Your task to perform on an android device: View the shopping cart on target.com. Add usb-c to usb-b to the cart on target.com, then select checkout. Image 0: 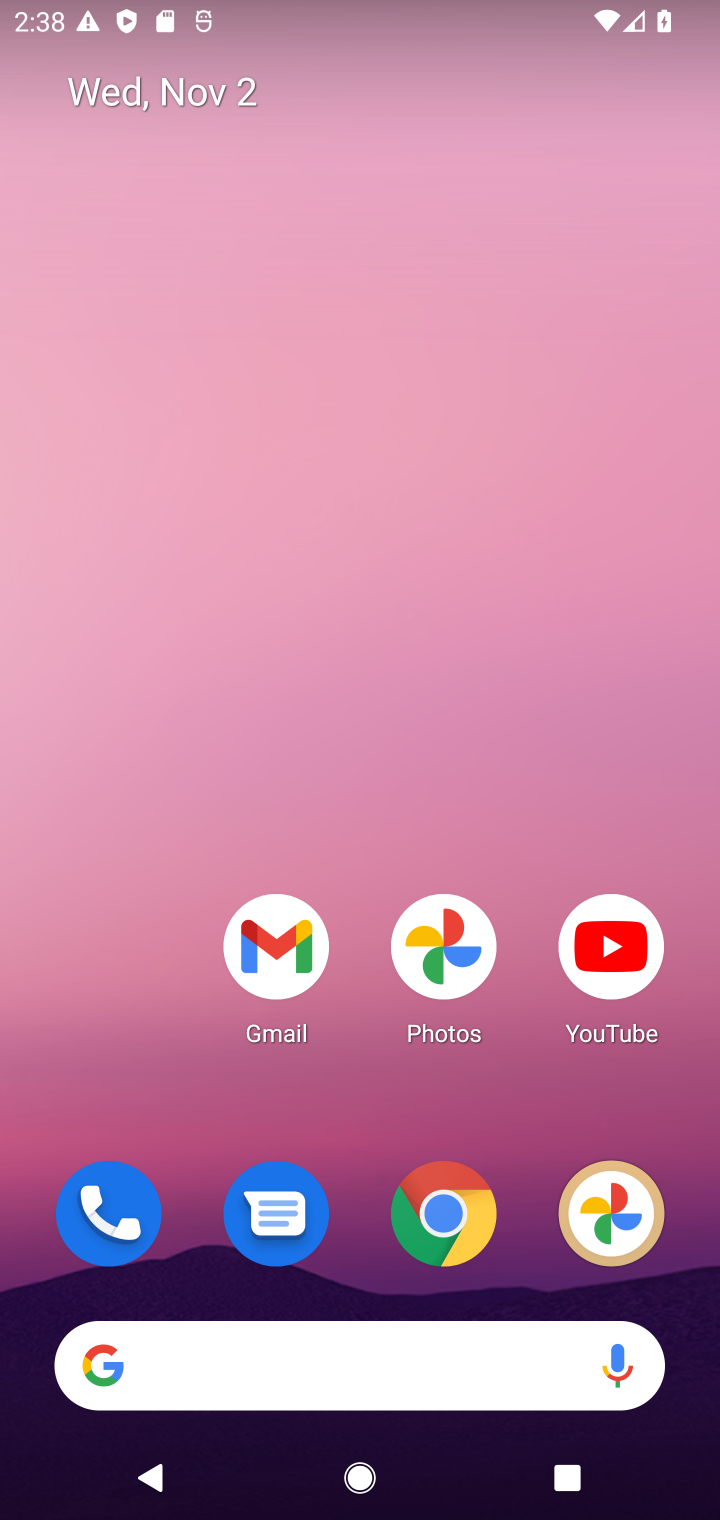
Step 0: press home button
Your task to perform on an android device: View the shopping cart on target.com. Add usb-c to usb-b to the cart on target.com, then select checkout. Image 1: 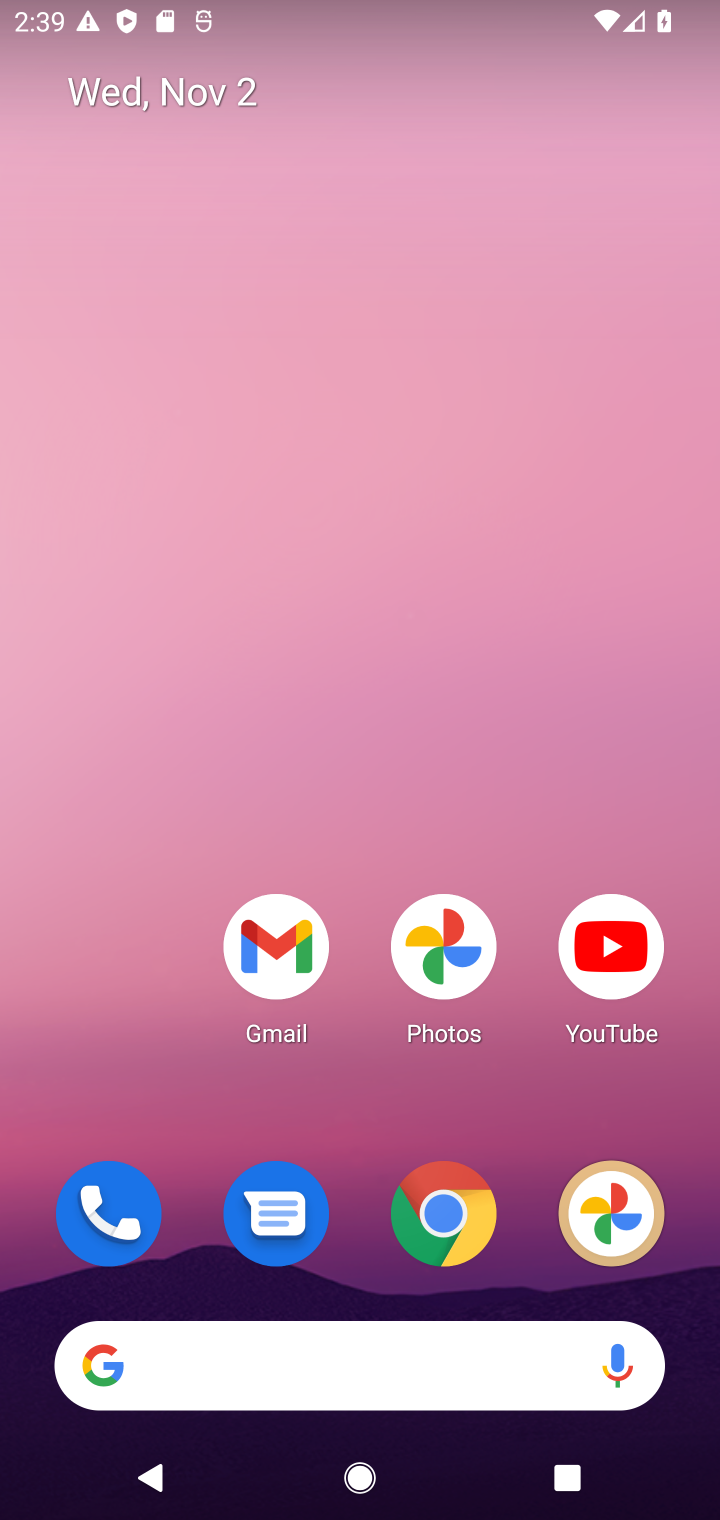
Step 1: click (452, 1202)
Your task to perform on an android device: View the shopping cart on target.com. Add usb-c to usb-b to the cart on target.com, then select checkout. Image 2: 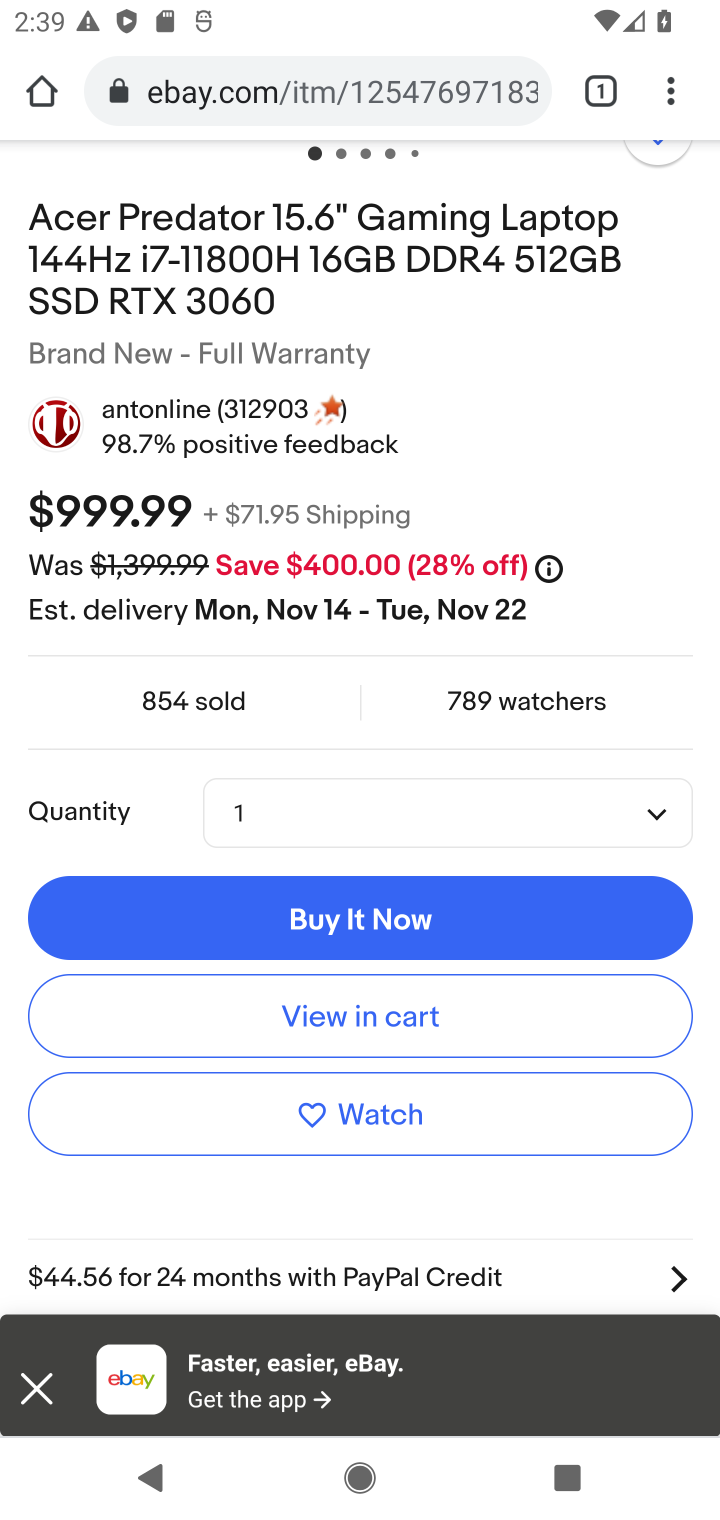
Step 2: click (282, 88)
Your task to perform on an android device: View the shopping cart on target.com. Add usb-c to usb-b to the cart on target.com, then select checkout. Image 3: 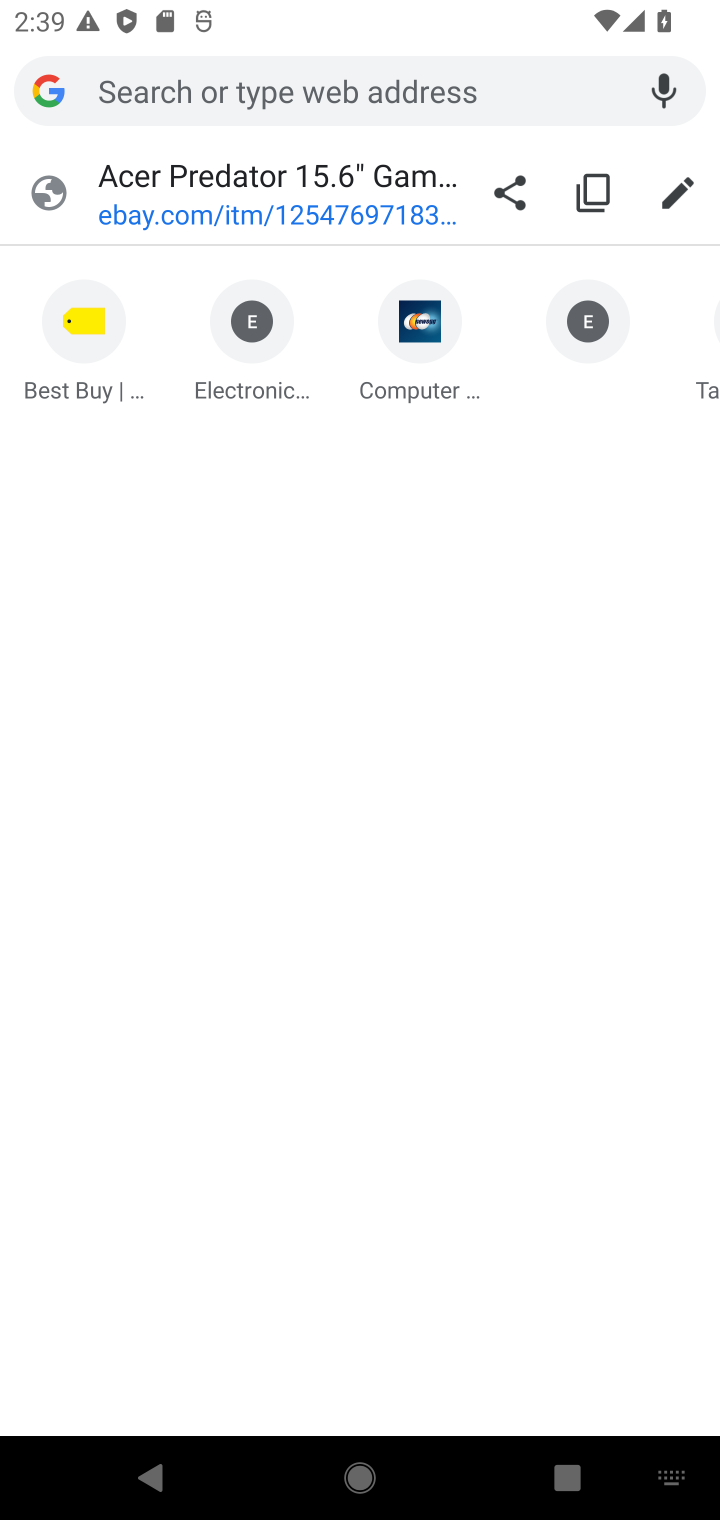
Step 3: type "target.com"
Your task to perform on an android device: View the shopping cart on target.com. Add usb-c to usb-b to the cart on target.com, then select checkout. Image 4: 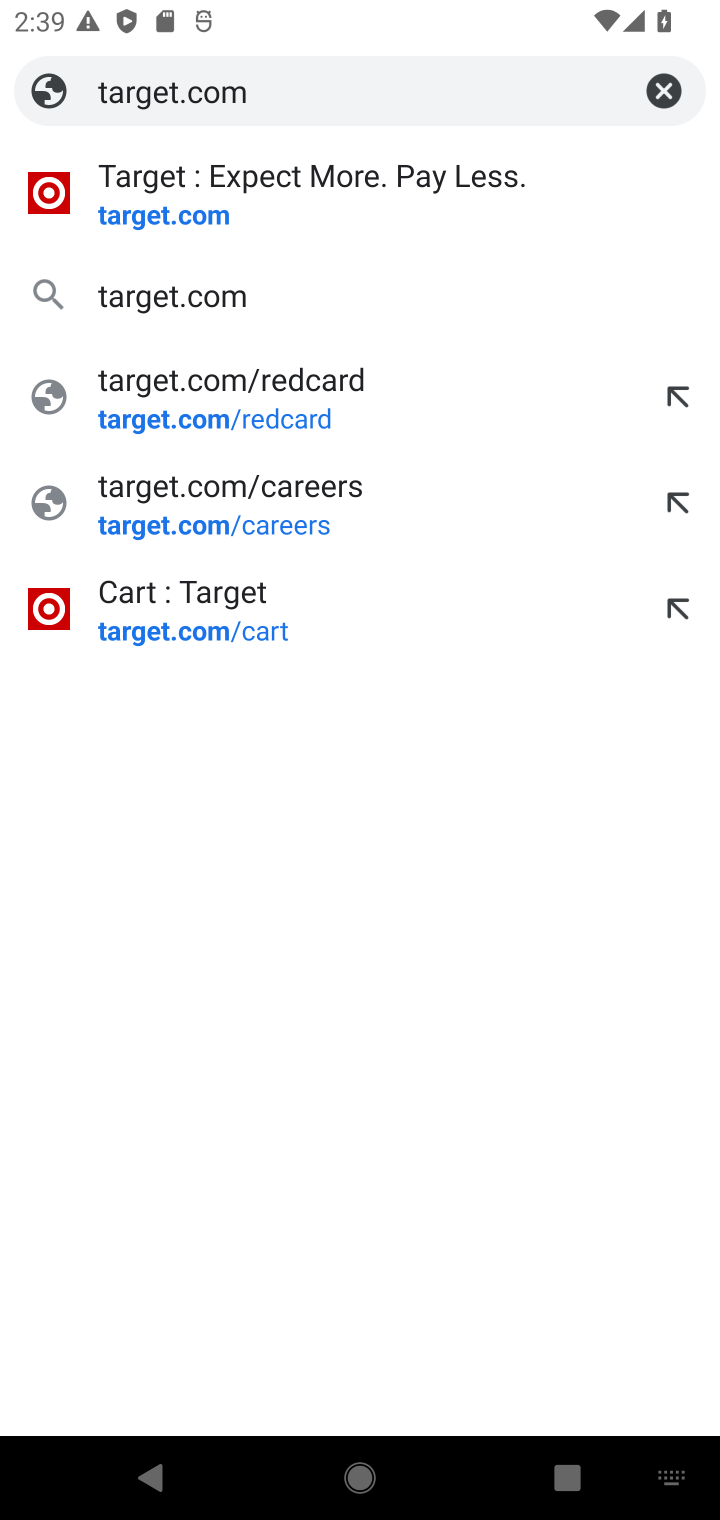
Step 4: press enter
Your task to perform on an android device: View the shopping cart on target.com. Add usb-c to usb-b to the cart on target.com, then select checkout. Image 5: 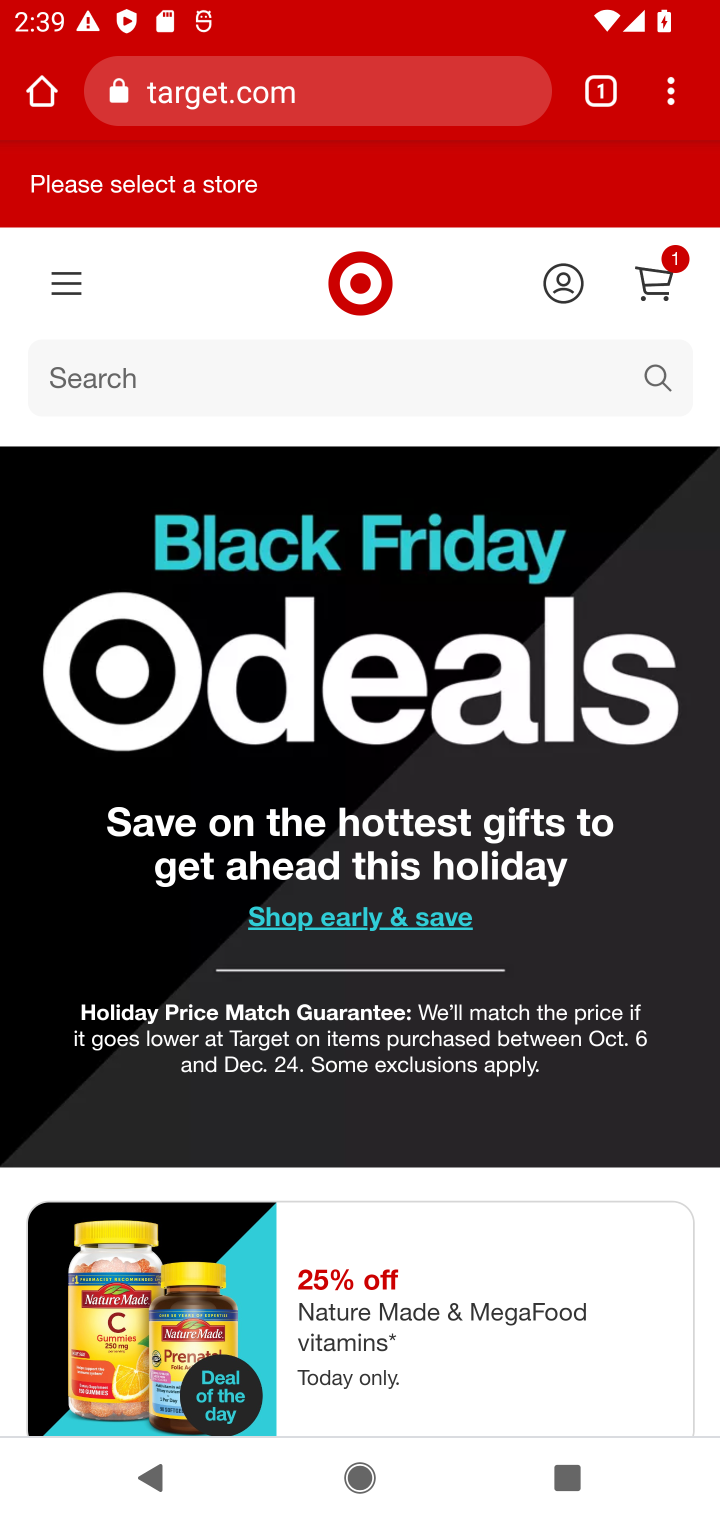
Step 5: drag from (520, 1192) to (430, 1085)
Your task to perform on an android device: View the shopping cart on target.com. Add usb-c to usb-b to the cart on target.com, then select checkout. Image 6: 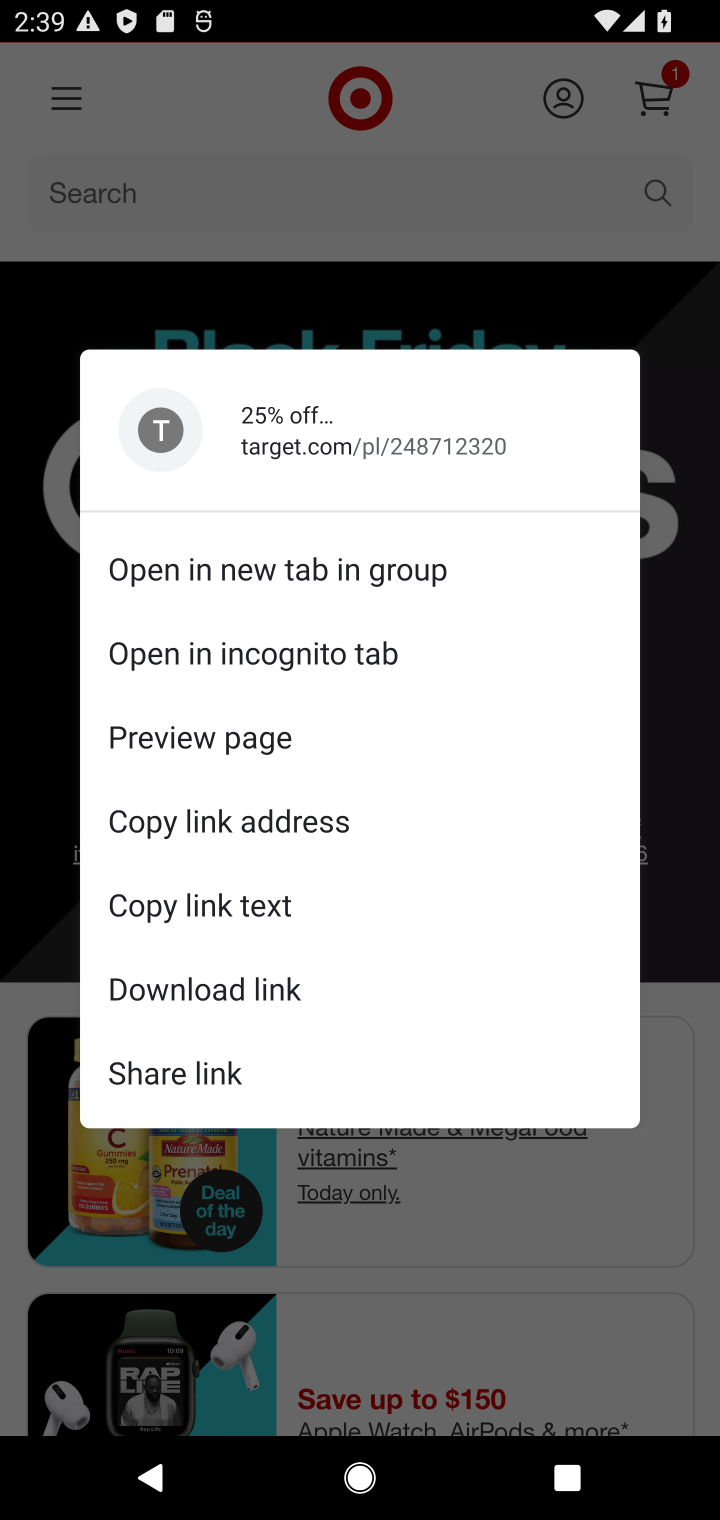
Step 6: click (660, 82)
Your task to perform on an android device: View the shopping cart on target.com. Add usb-c to usb-b to the cart on target.com, then select checkout. Image 7: 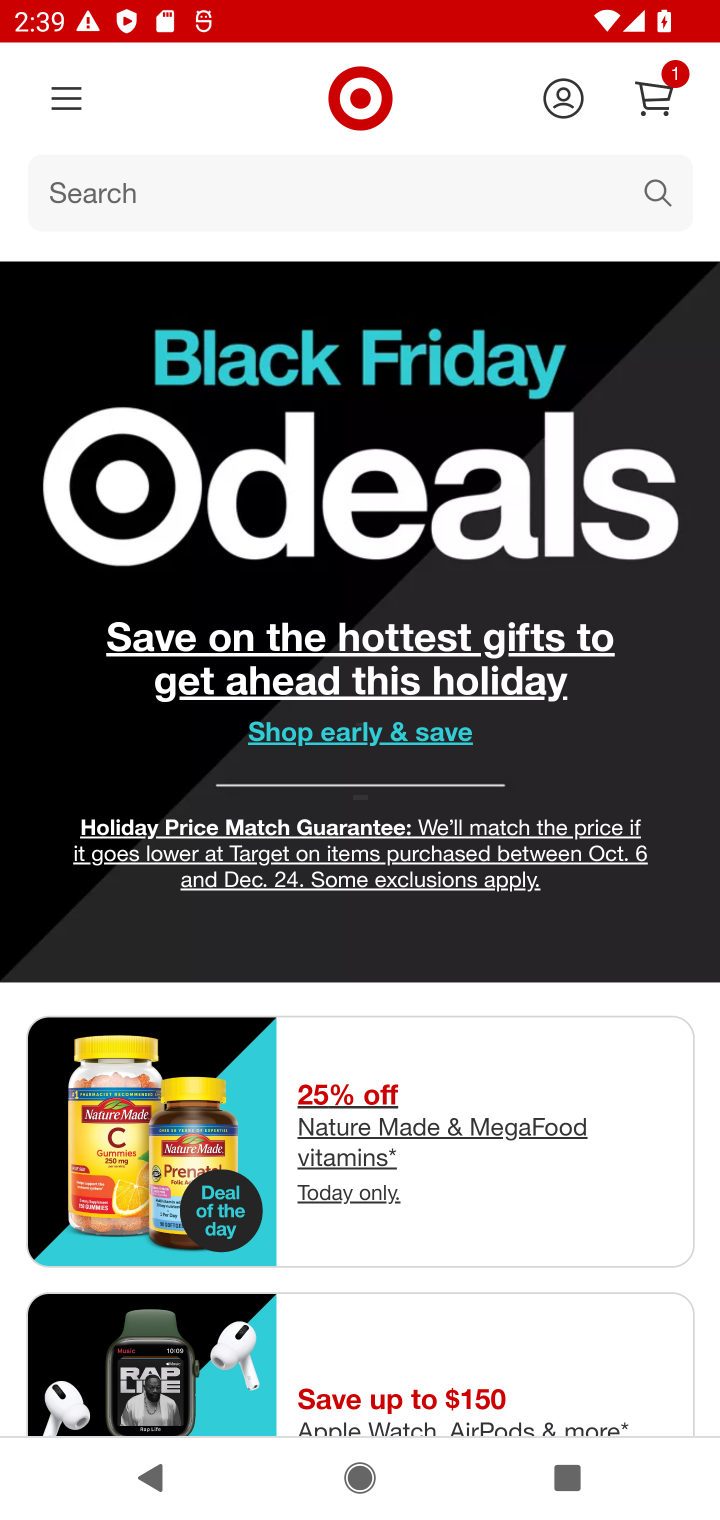
Step 7: click (652, 94)
Your task to perform on an android device: View the shopping cart on target.com. Add usb-c to usb-b to the cart on target.com, then select checkout. Image 8: 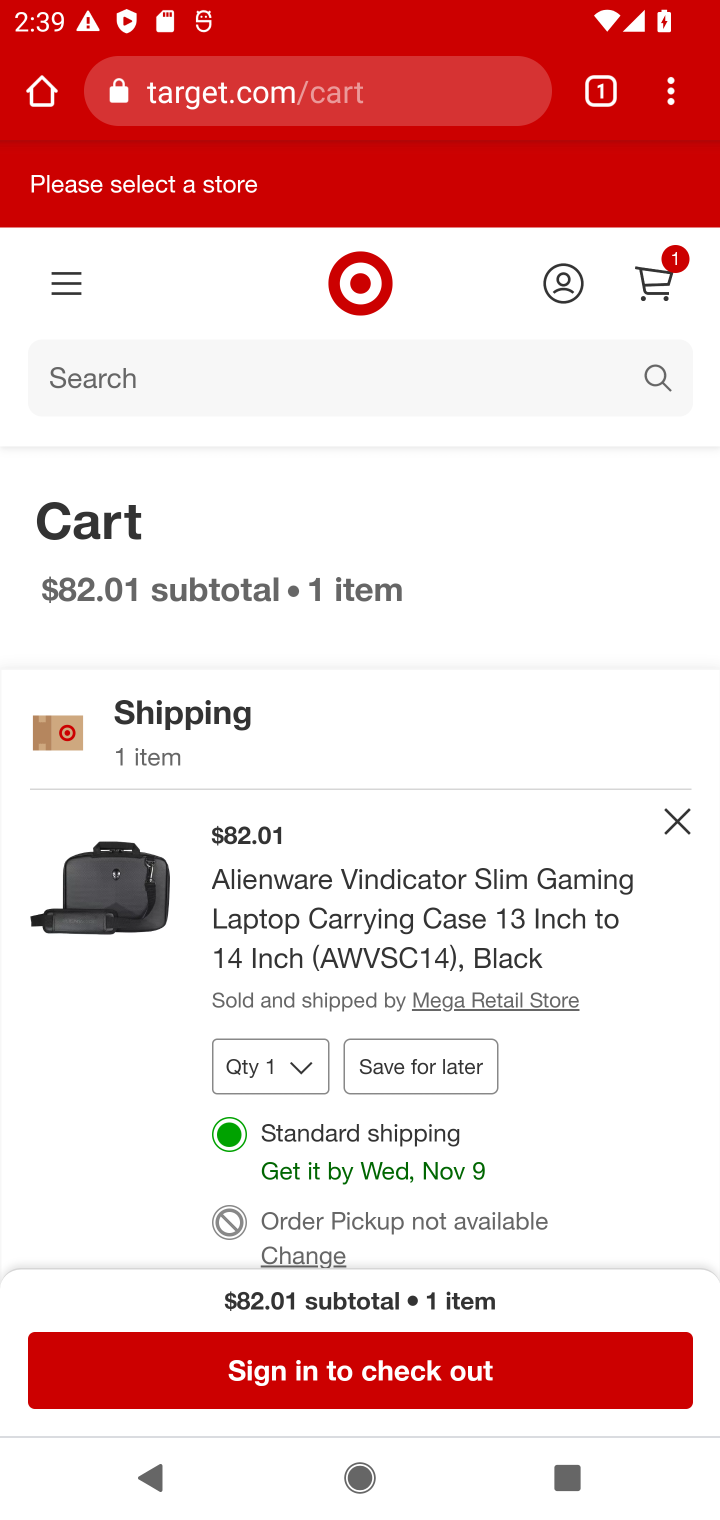
Step 8: click (470, 369)
Your task to perform on an android device: View the shopping cart on target.com. Add usb-c to usb-b to the cart on target.com, then select checkout. Image 9: 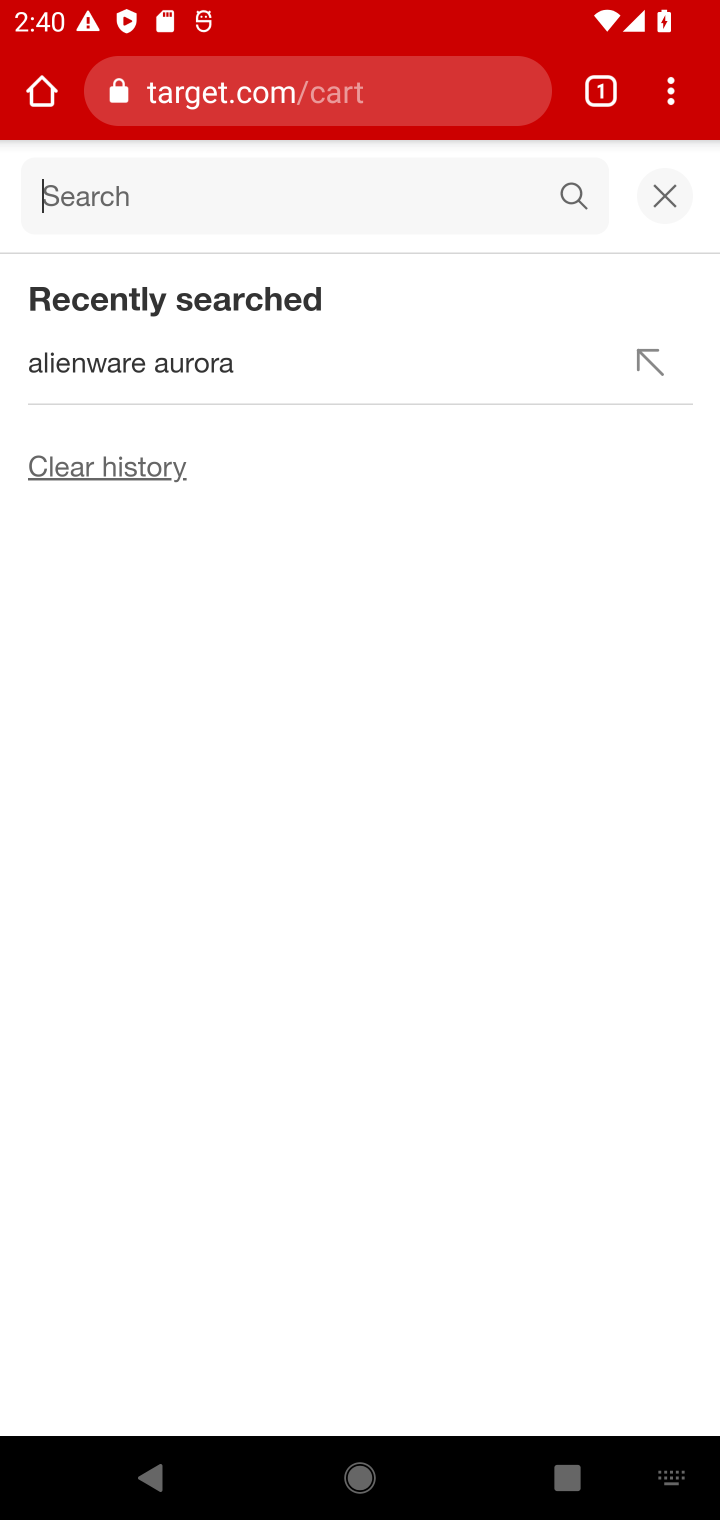
Step 9: type "usb-c to usb-b"
Your task to perform on an android device: View the shopping cart on target.com. Add usb-c to usb-b to the cart on target.com, then select checkout. Image 10: 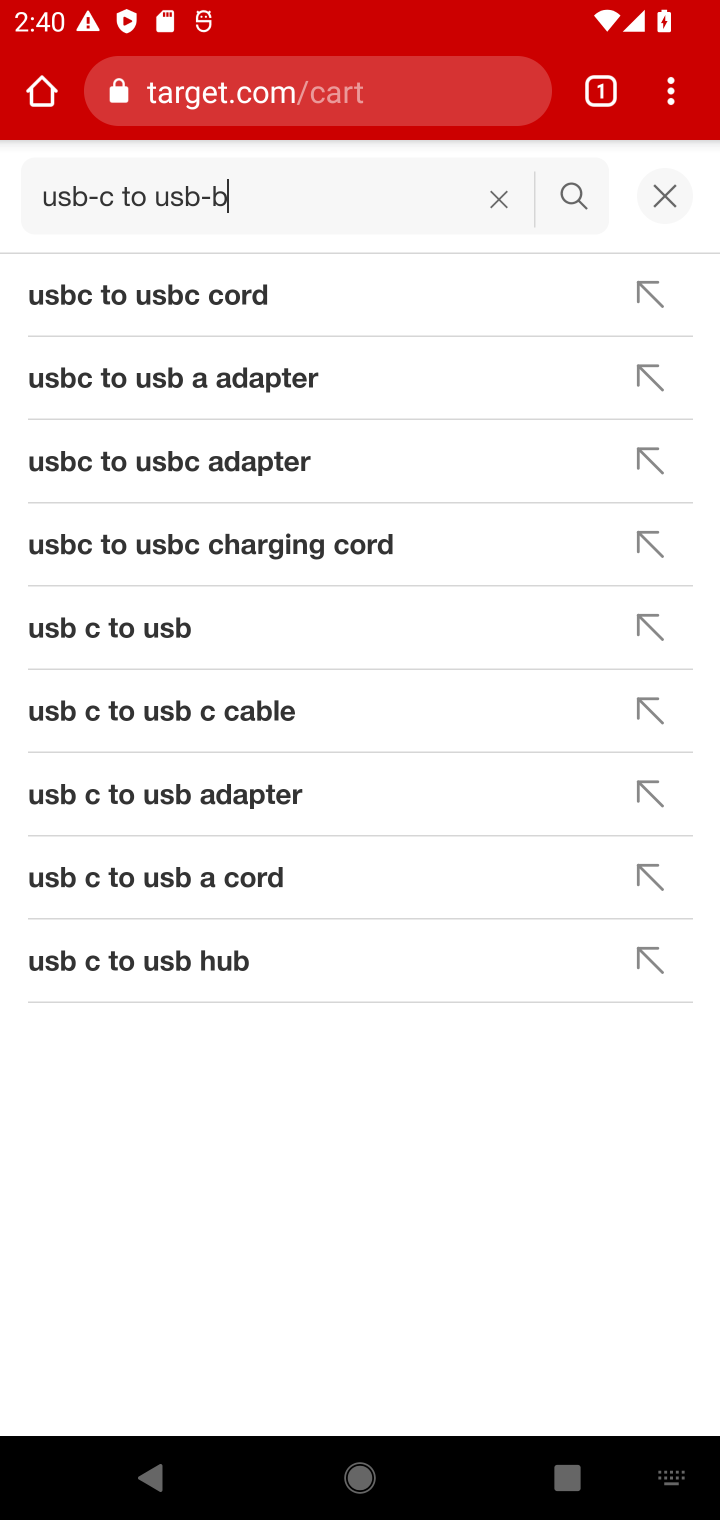
Step 10: click (573, 209)
Your task to perform on an android device: View the shopping cart on target.com. Add usb-c to usb-b to the cart on target.com, then select checkout. Image 11: 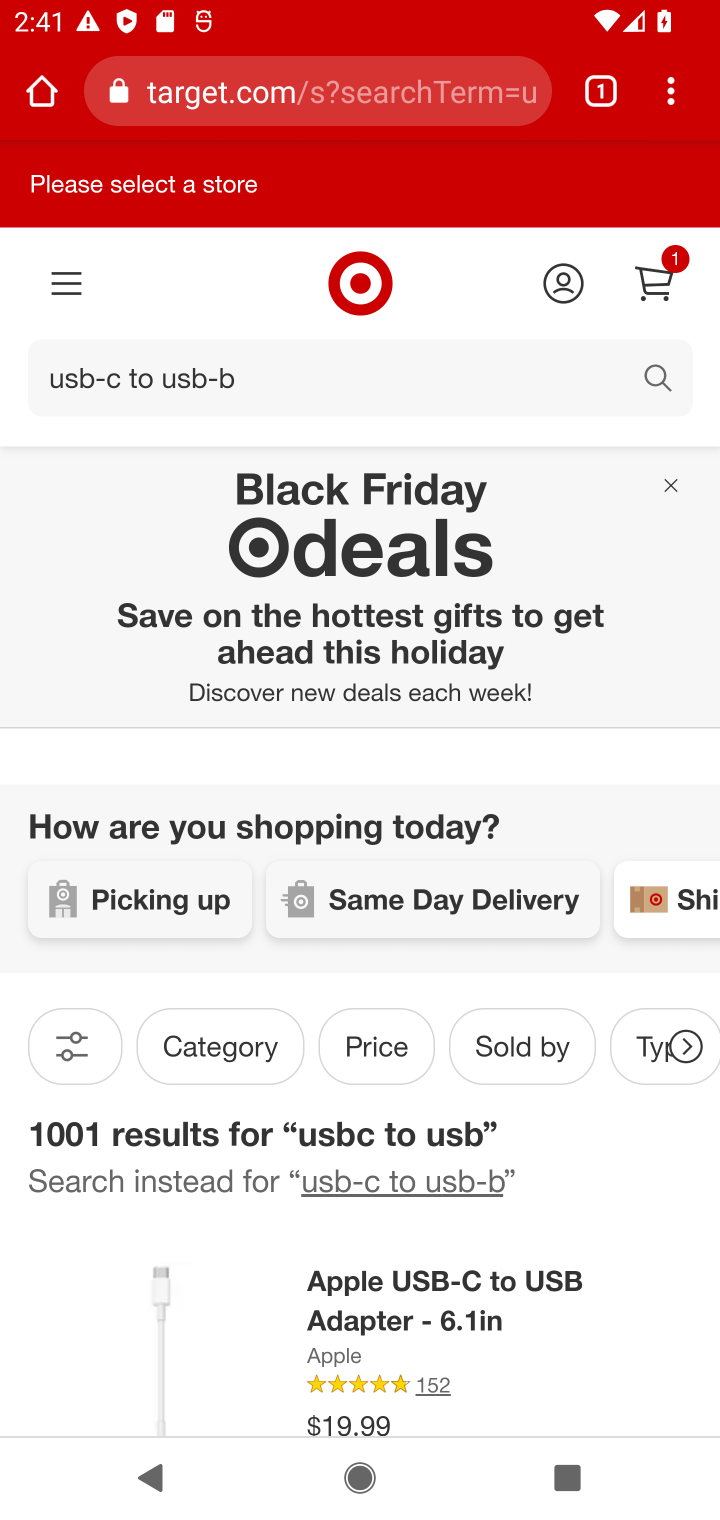
Step 11: task complete